Your task to perform on an android device: refresh tabs in the chrome app Image 0: 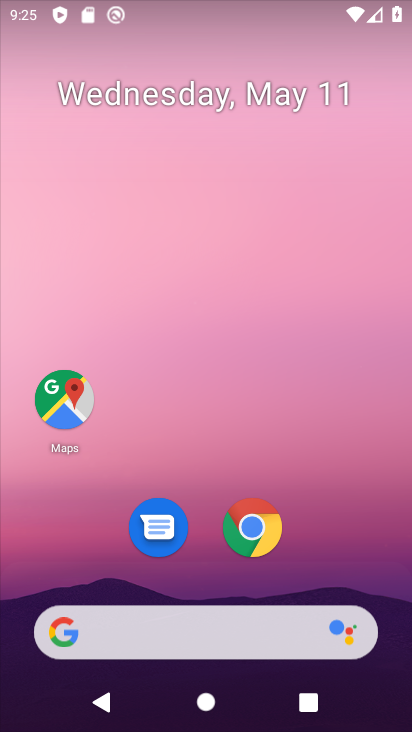
Step 0: click (250, 528)
Your task to perform on an android device: refresh tabs in the chrome app Image 1: 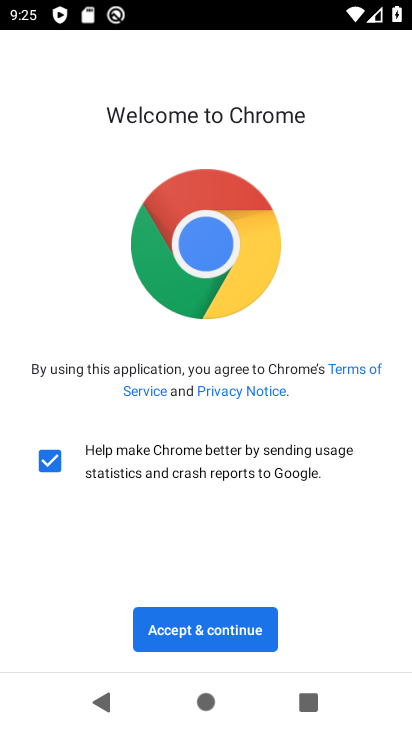
Step 1: click (230, 637)
Your task to perform on an android device: refresh tabs in the chrome app Image 2: 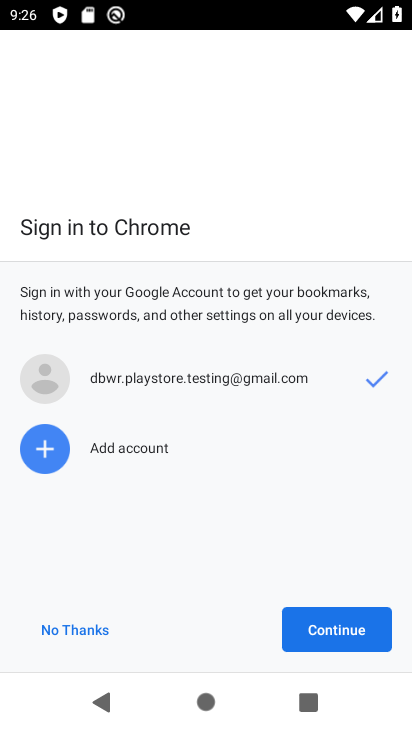
Step 2: click (317, 628)
Your task to perform on an android device: refresh tabs in the chrome app Image 3: 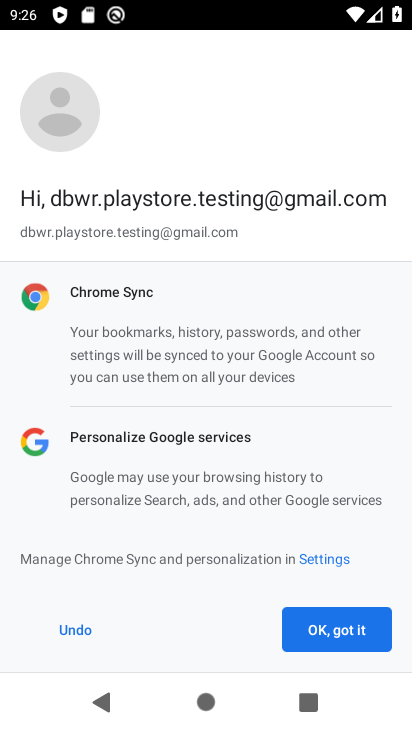
Step 3: click (317, 628)
Your task to perform on an android device: refresh tabs in the chrome app Image 4: 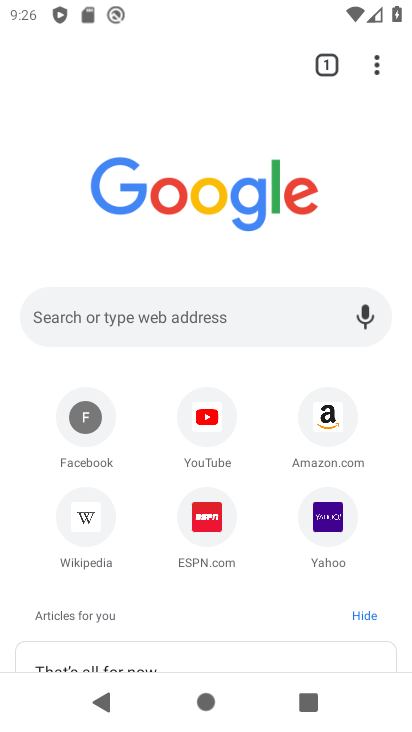
Step 4: click (376, 60)
Your task to perform on an android device: refresh tabs in the chrome app Image 5: 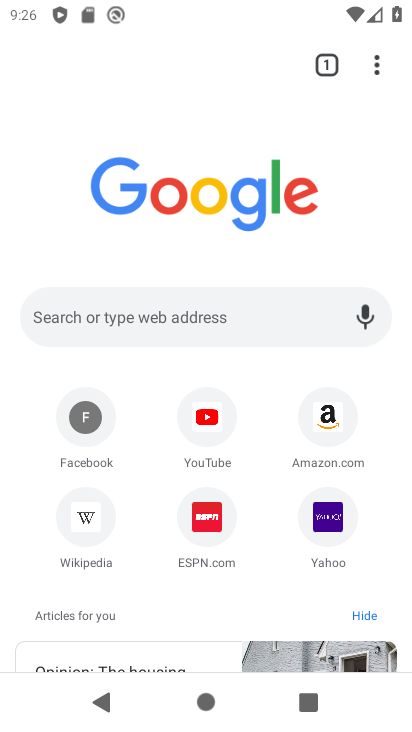
Step 5: task complete